Your task to perform on an android device: Open notification settings Image 0: 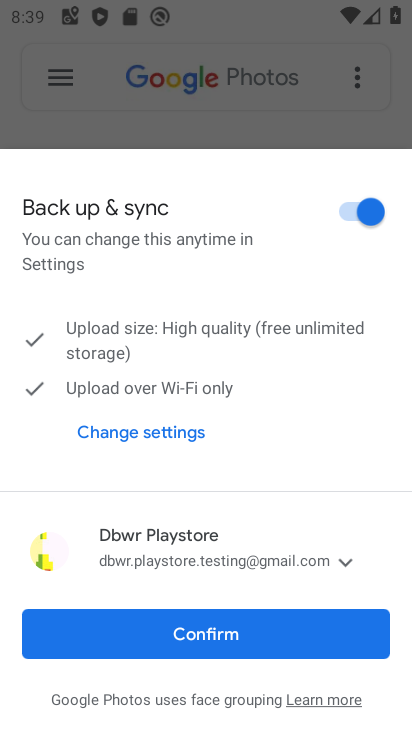
Step 0: click (257, 619)
Your task to perform on an android device: Open notification settings Image 1: 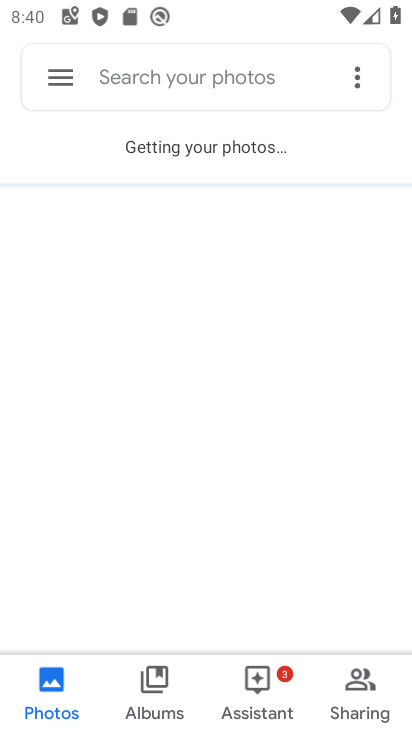
Step 1: press home button
Your task to perform on an android device: Open notification settings Image 2: 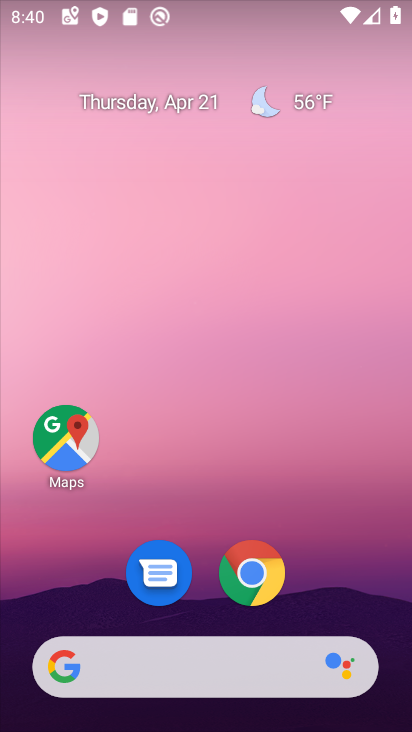
Step 2: drag from (342, 590) to (278, 123)
Your task to perform on an android device: Open notification settings Image 3: 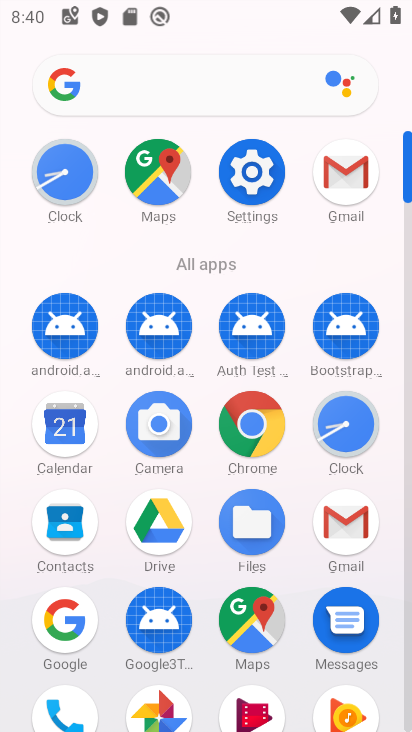
Step 3: click (251, 184)
Your task to perform on an android device: Open notification settings Image 4: 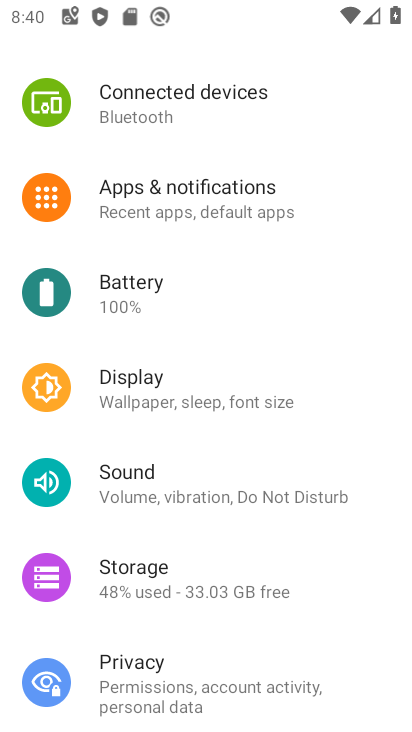
Step 4: click (147, 205)
Your task to perform on an android device: Open notification settings Image 5: 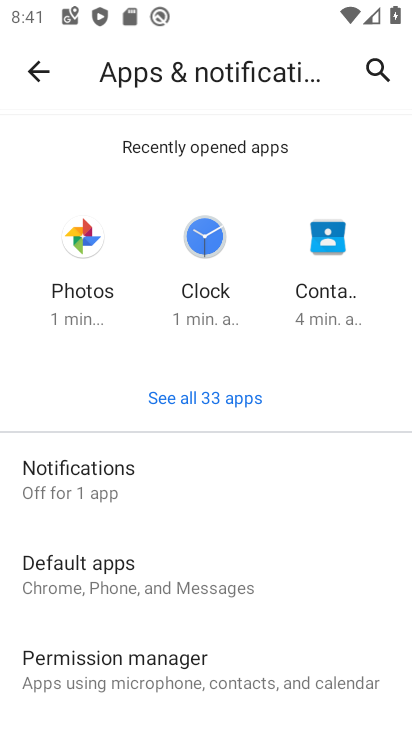
Step 5: click (148, 492)
Your task to perform on an android device: Open notification settings Image 6: 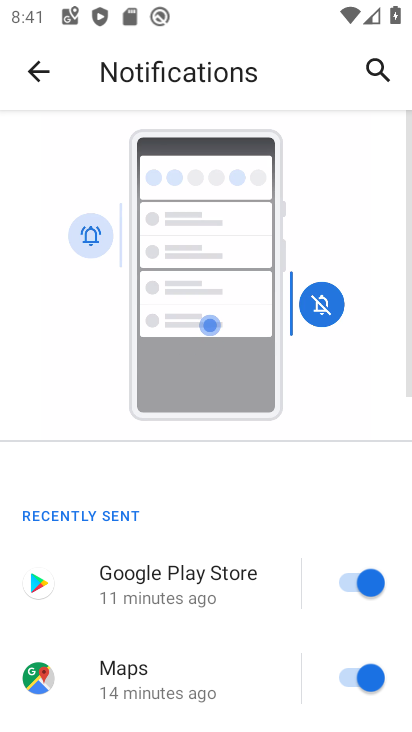
Step 6: task complete